Your task to perform on an android device: What's the weather today? Image 0: 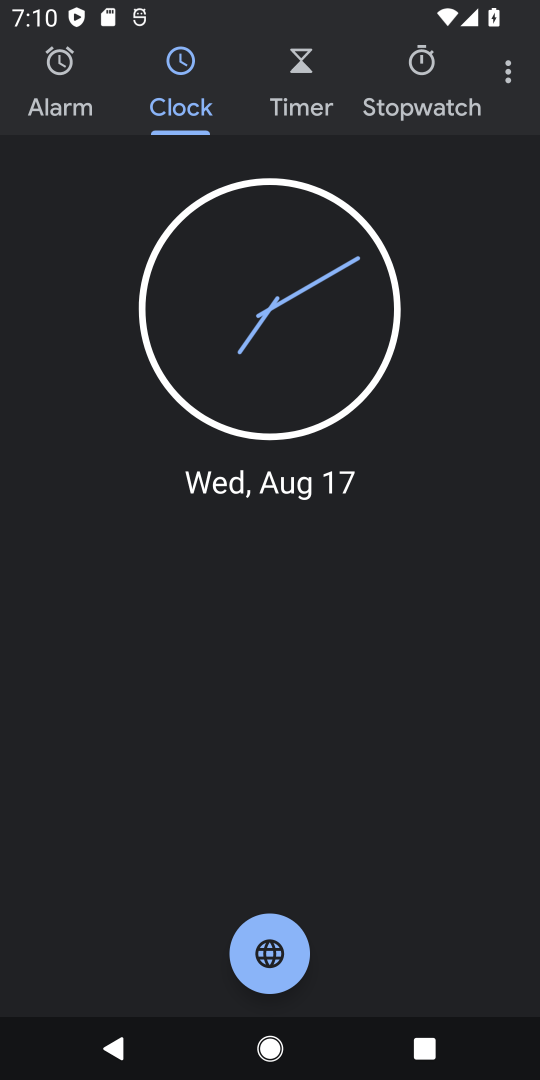
Step 0: press home button
Your task to perform on an android device: What's the weather today? Image 1: 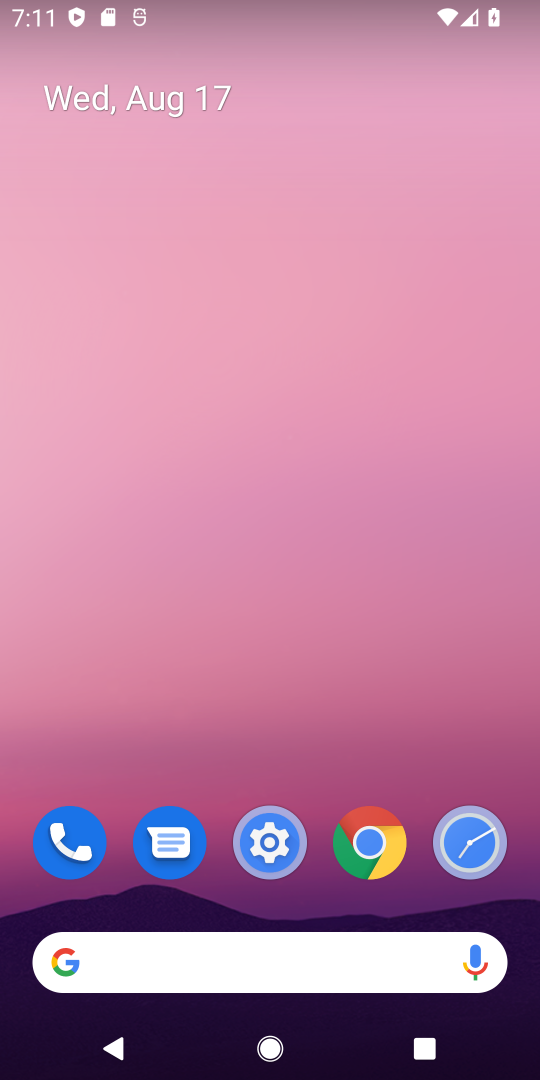
Step 1: click (246, 963)
Your task to perform on an android device: What's the weather today? Image 2: 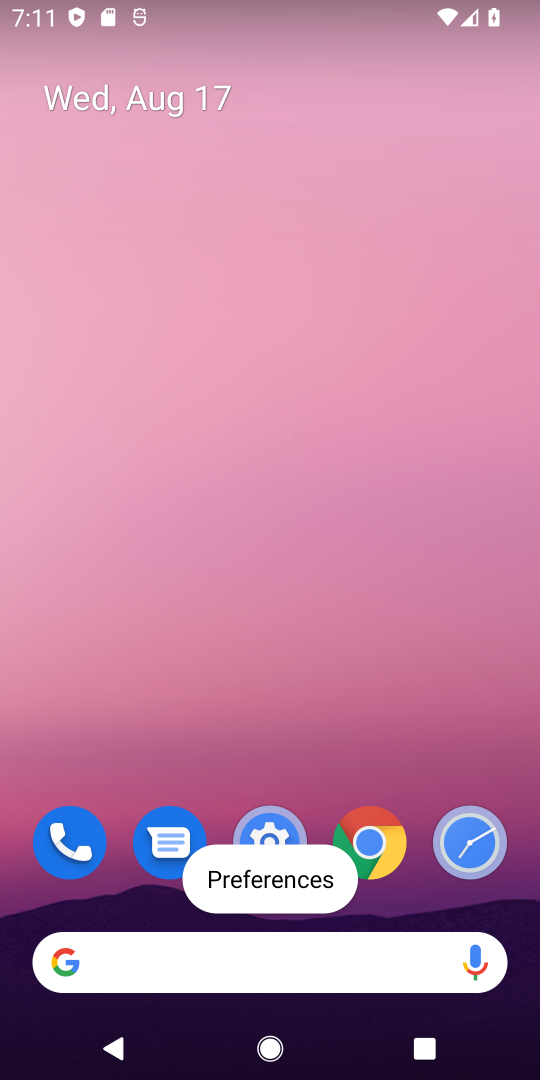
Step 2: click (147, 966)
Your task to perform on an android device: What's the weather today? Image 3: 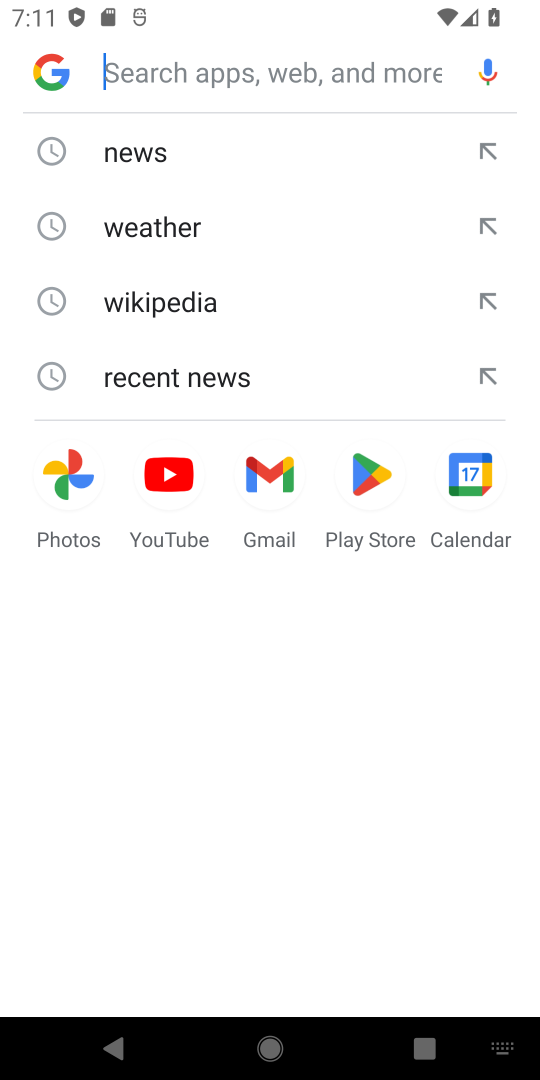
Step 3: click (177, 219)
Your task to perform on an android device: What's the weather today? Image 4: 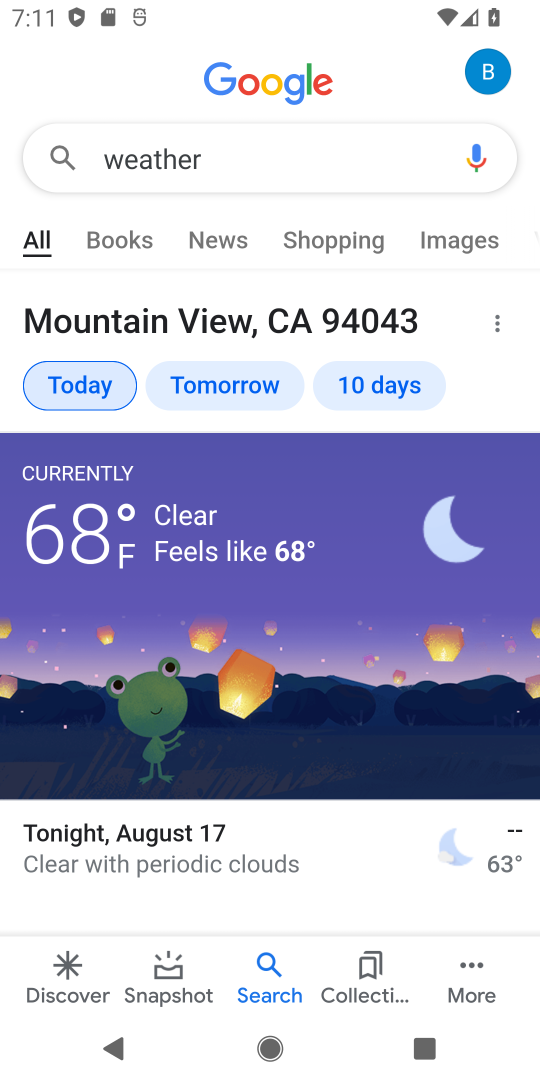
Step 4: click (75, 376)
Your task to perform on an android device: What's the weather today? Image 5: 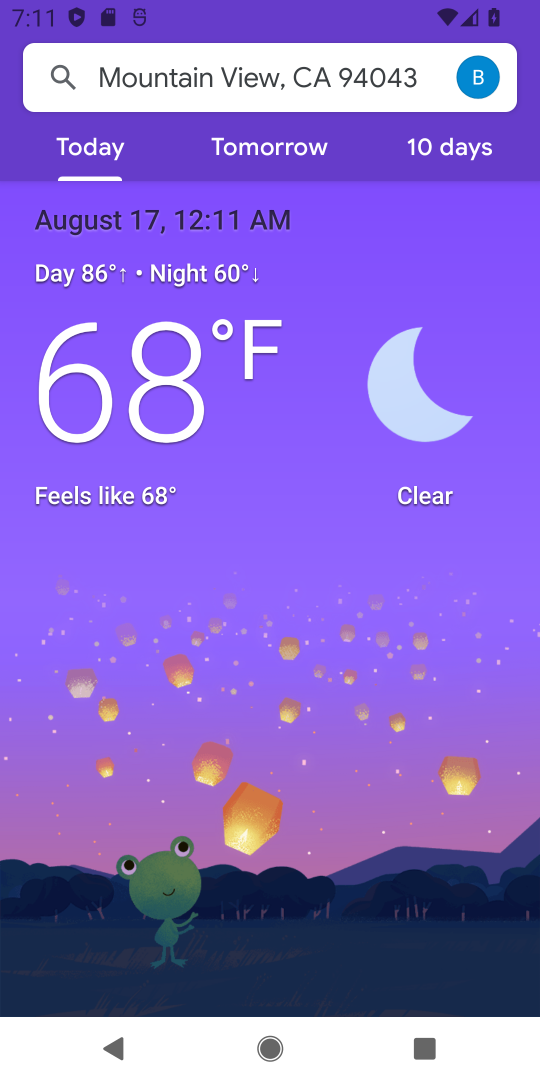
Step 5: task complete